Your task to perform on an android device: change the clock display to digital Image 0: 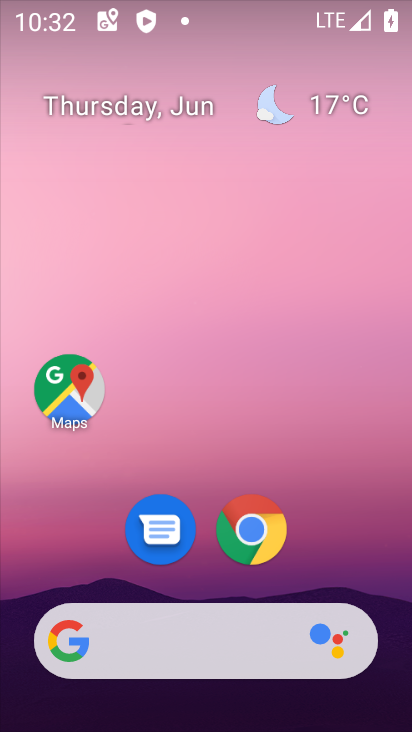
Step 0: drag from (329, 540) to (329, 32)
Your task to perform on an android device: change the clock display to digital Image 1: 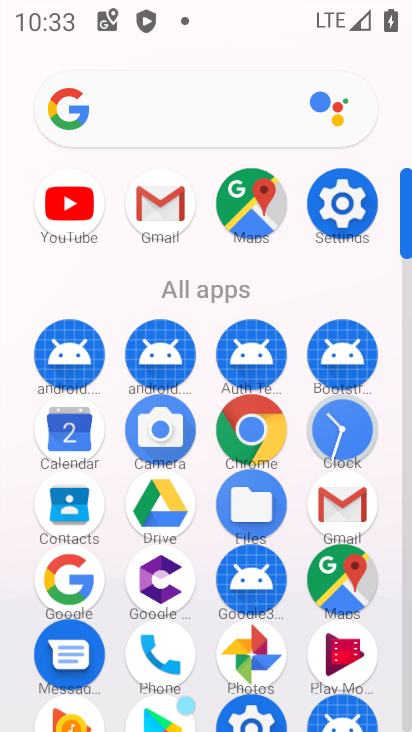
Step 1: click (348, 428)
Your task to perform on an android device: change the clock display to digital Image 2: 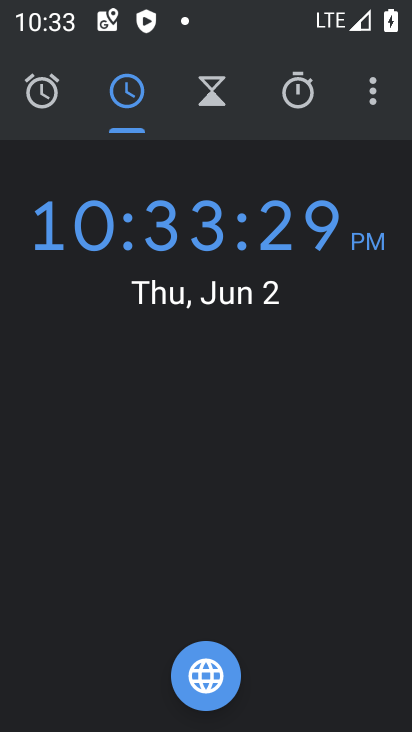
Step 2: click (369, 100)
Your task to perform on an android device: change the clock display to digital Image 3: 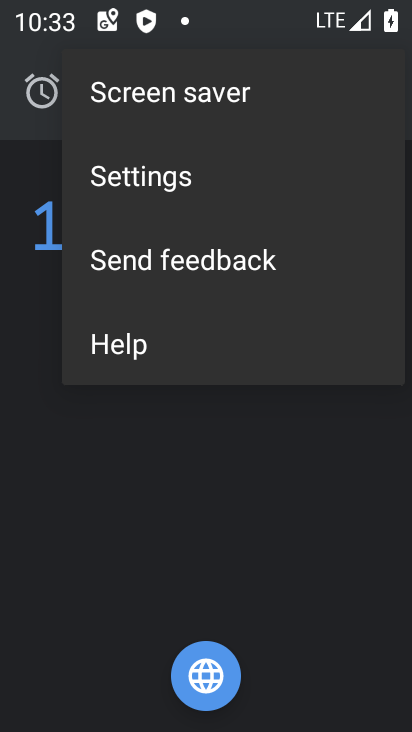
Step 3: click (259, 189)
Your task to perform on an android device: change the clock display to digital Image 4: 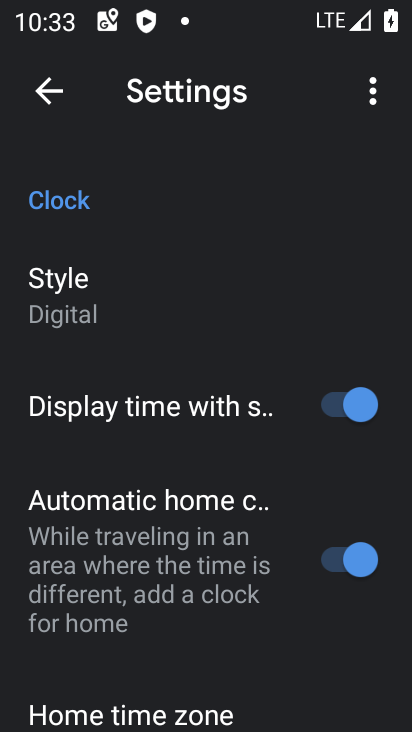
Step 4: click (78, 315)
Your task to perform on an android device: change the clock display to digital Image 5: 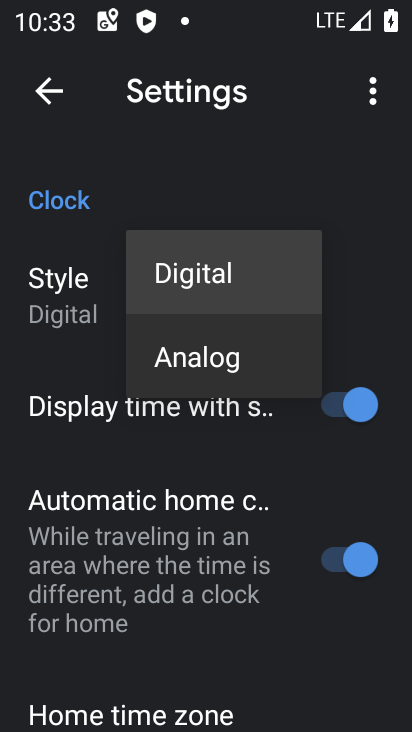
Step 5: click (233, 288)
Your task to perform on an android device: change the clock display to digital Image 6: 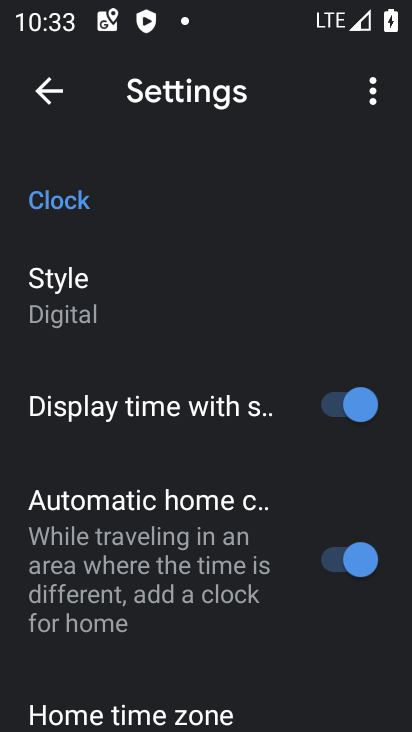
Step 6: task complete